Your task to perform on an android device: Open my contact list Image 0: 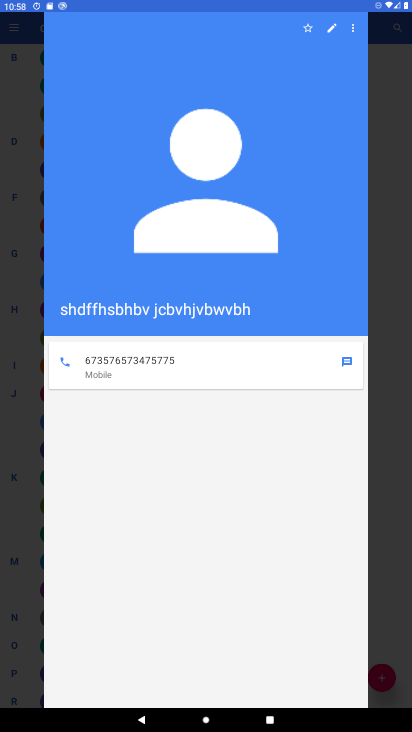
Step 0: drag from (205, 598) to (227, 426)
Your task to perform on an android device: Open my contact list Image 1: 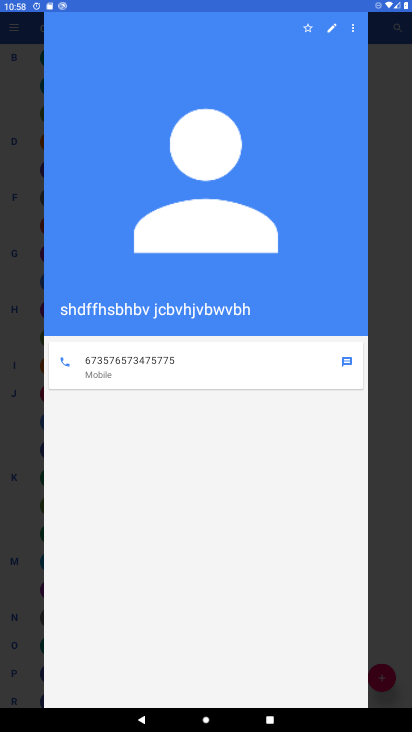
Step 1: press home button
Your task to perform on an android device: Open my contact list Image 2: 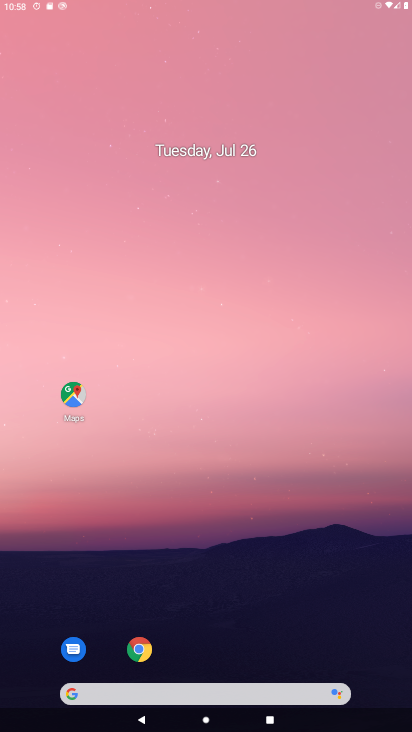
Step 2: drag from (195, 579) to (261, 17)
Your task to perform on an android device: Open my contact list Image 3: 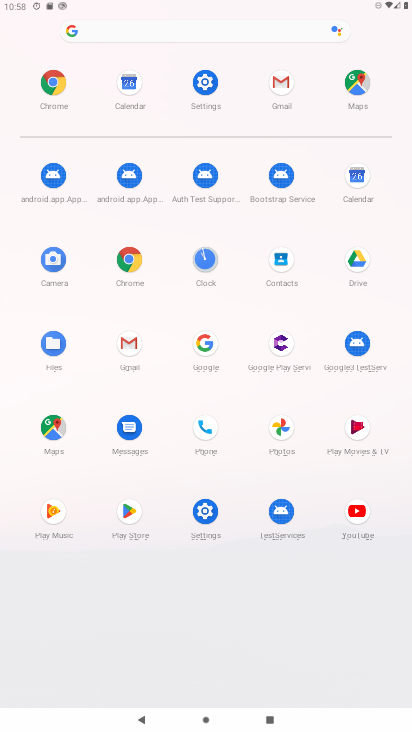
Step 3: click (275, 265)
Your task to perform on an android device: Open my contact list Image 4: 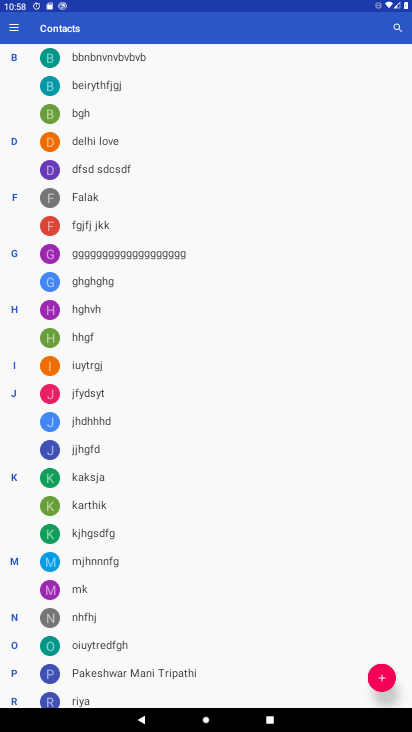
Step 4: task complete